Your task to perform on an android device: turn off javascript in the chrome app Image 0: 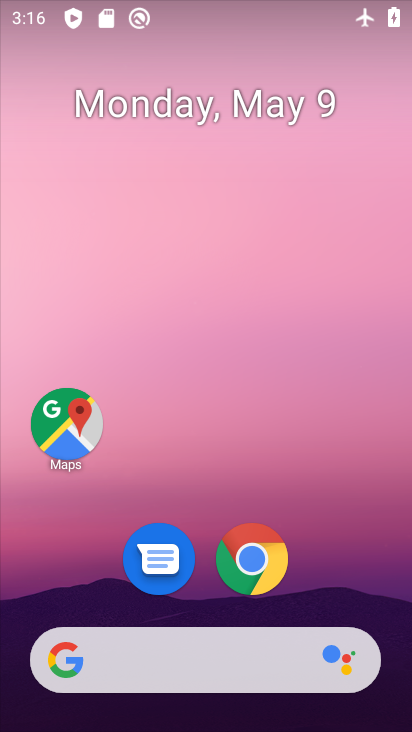
Step 0: click (247, 560)
Your task to perform on an android device: turn off javascript in the chrome app Image 1: 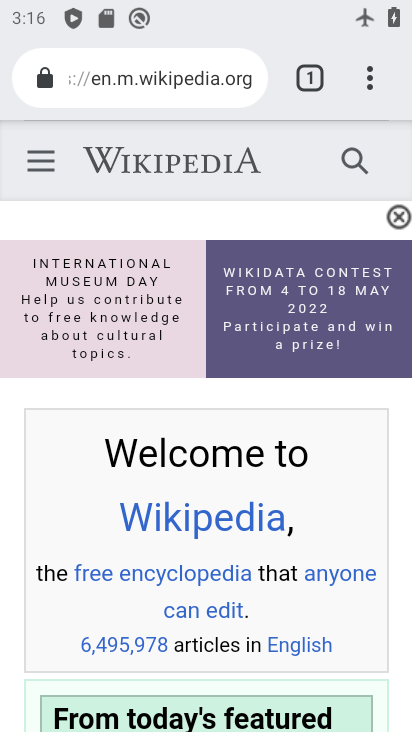
Step 1: click (370, 87)
Your task to perform on an android device: turn off javascript in the chrome app Image 2: 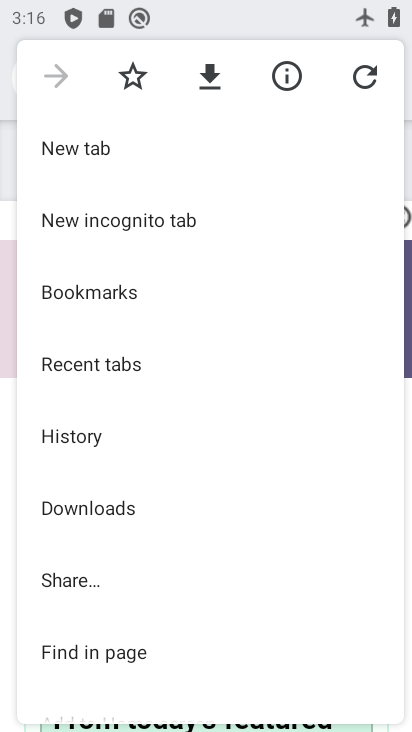
Step 2: drag from (142, 641) to (147, 441)
Your task to perform on an android device: turn off javascript in the chrome app Image 3: 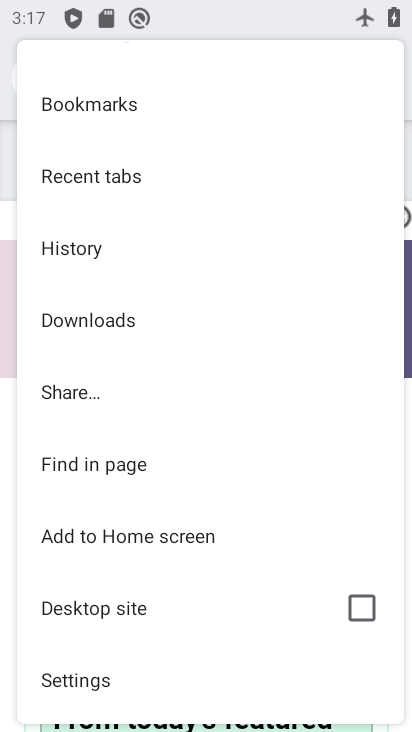
Step 3: click (92, 677)
Your task to perform on an android device: turn off javascript in the chrome app Image 4: 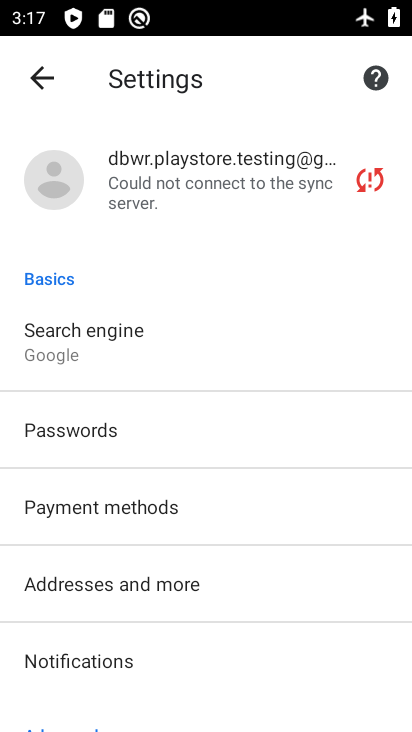
Step 4: drag from (140, 647) to (155, 355)
Your task to perform on an android device: turn off javascript in the chrome app Image 5: 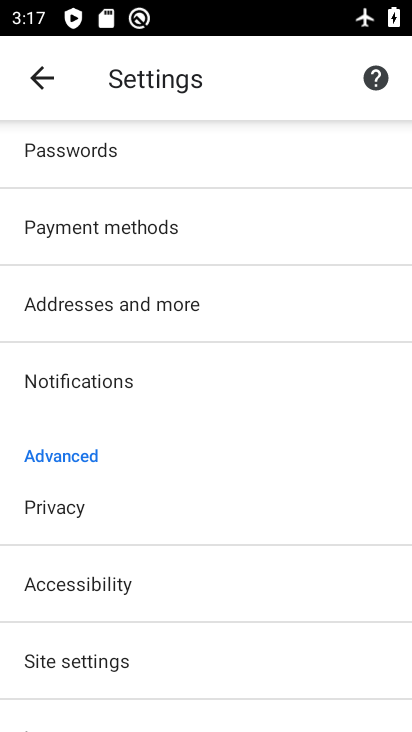
Step 5: click (77, 655)
Your task to perform on an android device: turn off javascript in the chrome app Image 6: 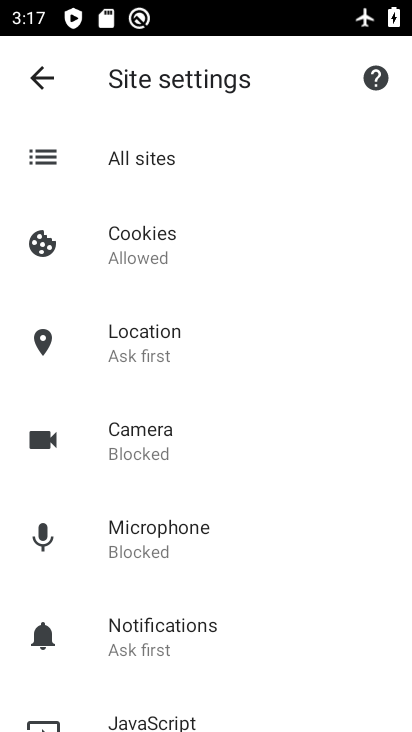
Step 6: drag from (149, 671) to (176, 353)
Your task to perform on an android device: turn off javascript in the chrome app Image 7: 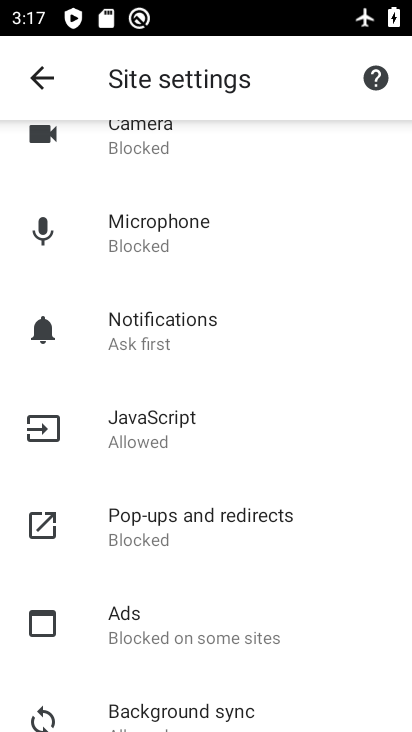
Step 7: click (157, 413)
Your task to perform on an android device: turn off javascript in the chrome app Image 8: 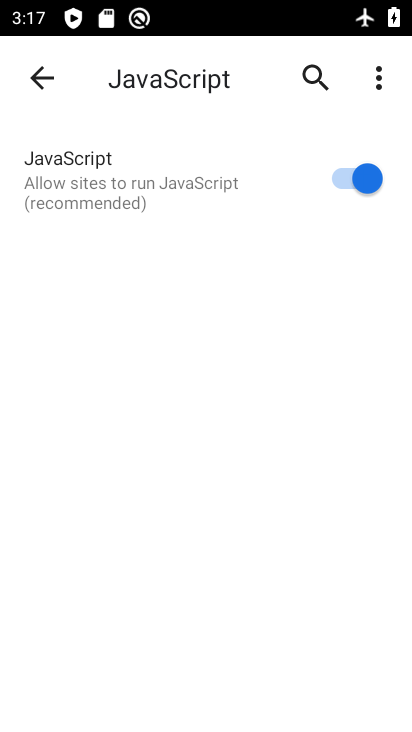
Step 8: click (346, 176)
Your task to perform on an android device: turn off javascript in the chrome app Image 9: 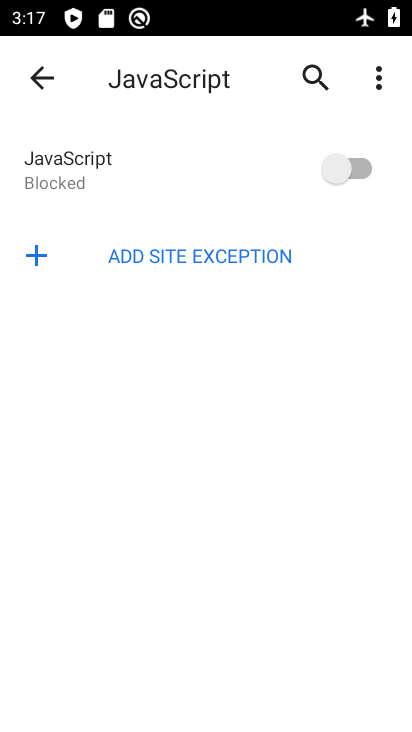
Step 9: task complete